Your task to perform on an android device: Open the calendar app, open the side menu, and click the "Day" option Image 0: 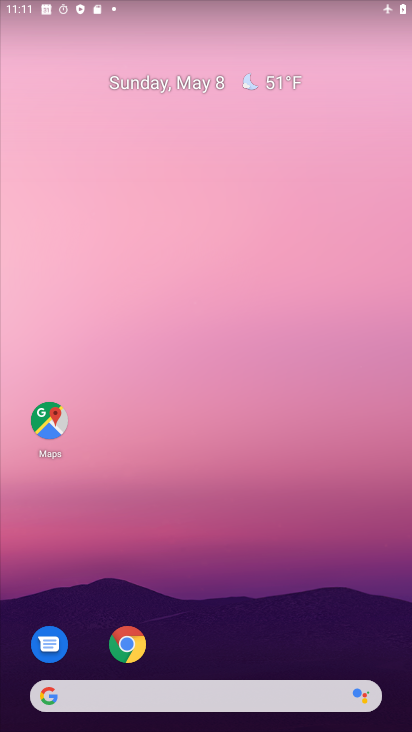
Step 0: drag from (238, 624) to (340, 129)
Your task to perform on an android device: Open the calendar app, open the side menu, and click the "Day" option Image 1: 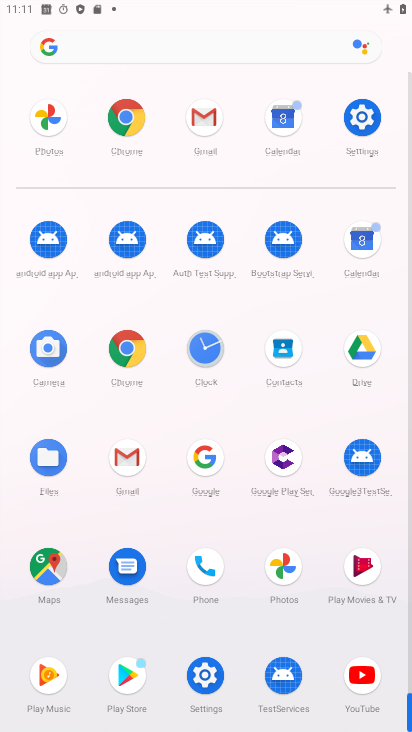
Step 1: click (350, 247)
Your task to perform on an android device: Open the calendar app, open the side menu, and click the "Day" option Image 2: 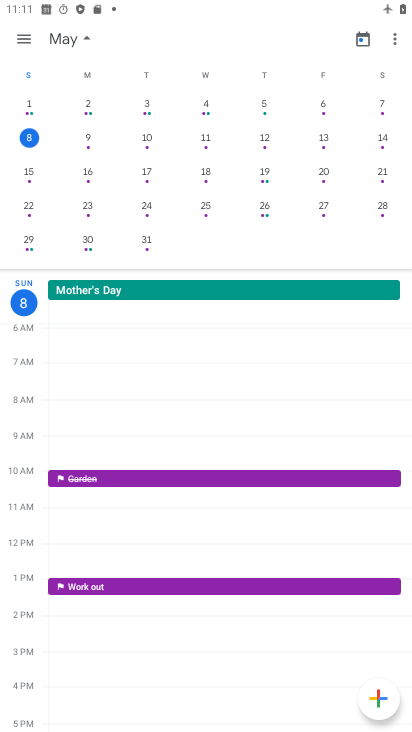
Step 2: click (22, 32)
Your task to perform on an android device: Open the calendar app, open the side menu, and click the "Day" option Image 3: 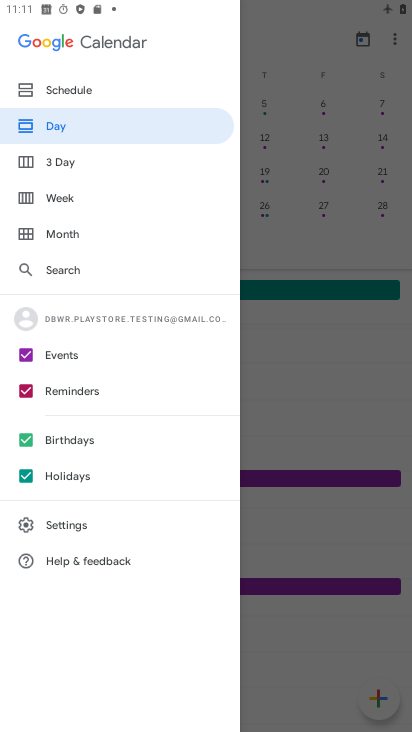
Step 3: click (88, 128)
Your task to perform on an android device: Open the calendar app, open the side menu, and click the "Day" option Image 4: 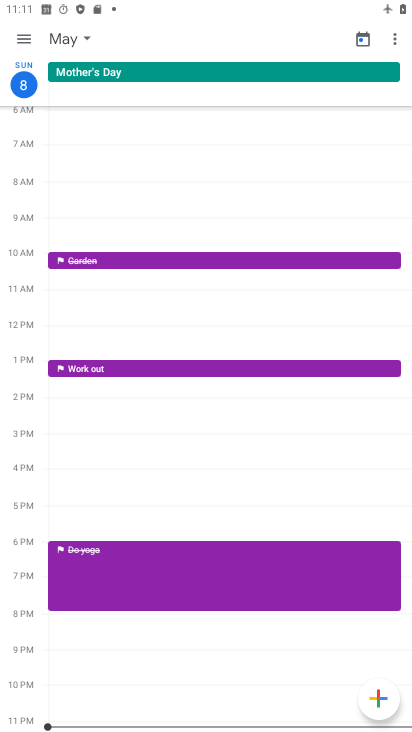
Step 4: task complete